Your task to perform on an android device: Go to Wikipedia Image 0: 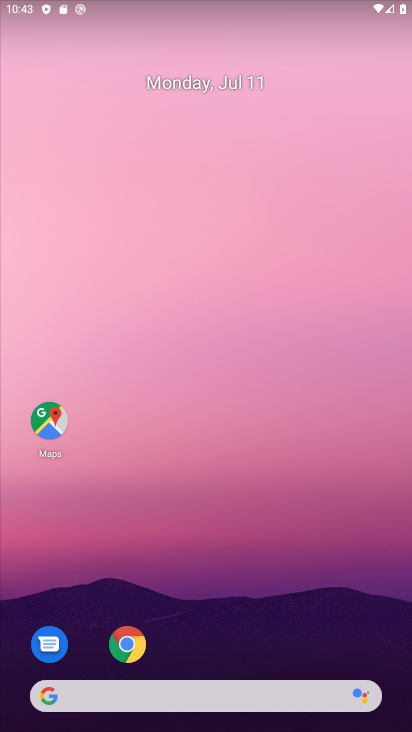
Step 0: drag from (295, 453) to (373, 43)
Your task to perform on an android device: Go to Wikipedia Image 1: 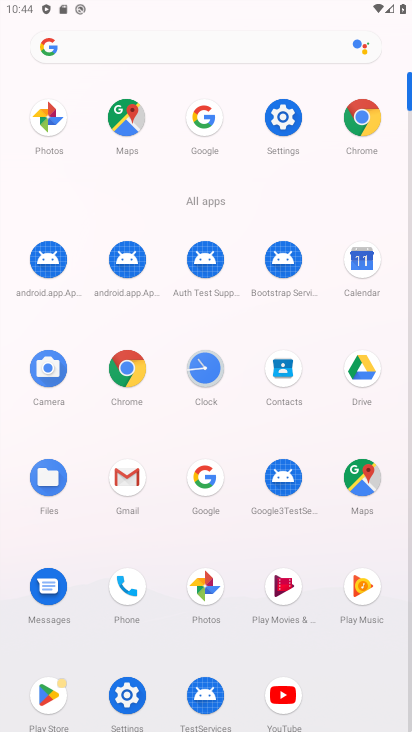
Step 1: click (363, 117)
Your task to perform on an android device: Go to Wikipedia Image 2: 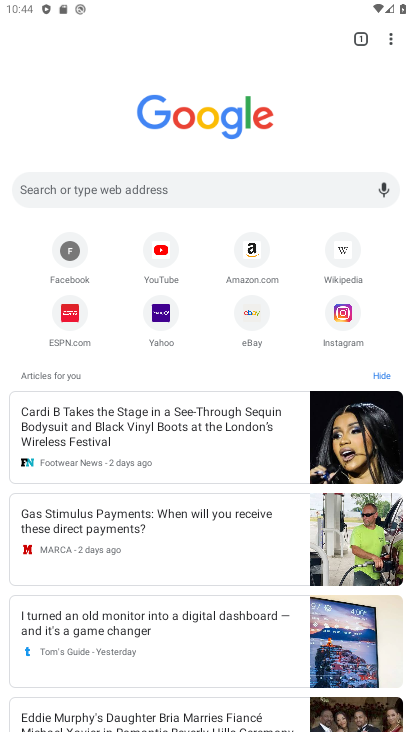
Step 2: click (344, 251)
Your task to perform on an android device: Go to Wikipedia Image 3: 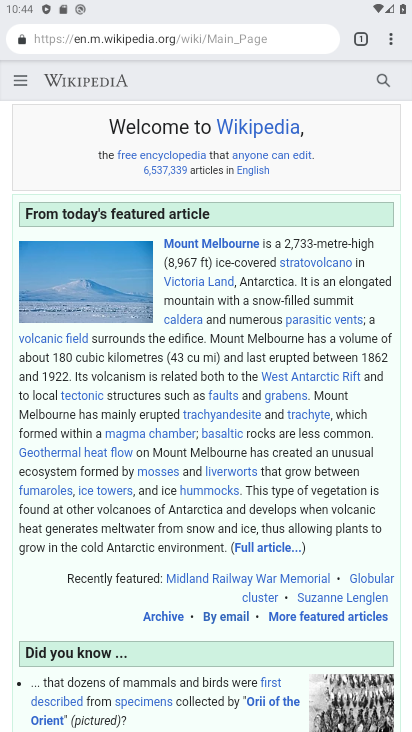
Step 3: task complete